Your task to perform on an android device: snooze an email in the gmail app Image 0: 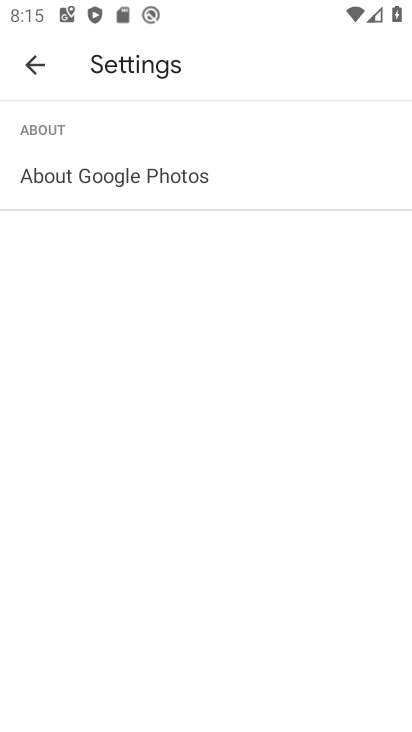
Step 0: press home button
Your task to perform on an android device: snooze an email in the gmail app Image 1: 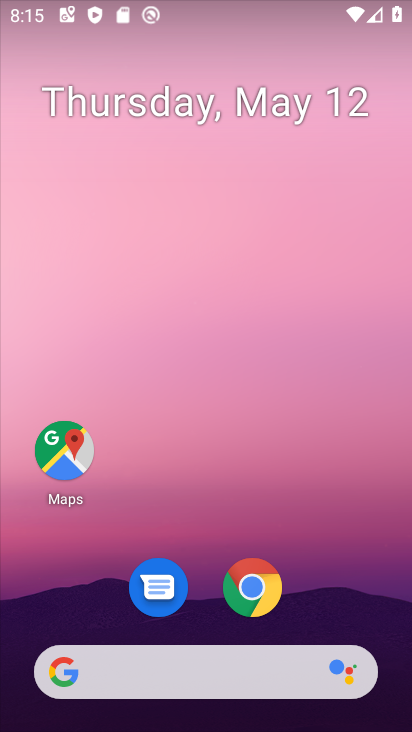
Step 1: drag from (331, 602) to (328, 188)
Your task to perform on an android device: snooze an email in the gmail app Image 2: 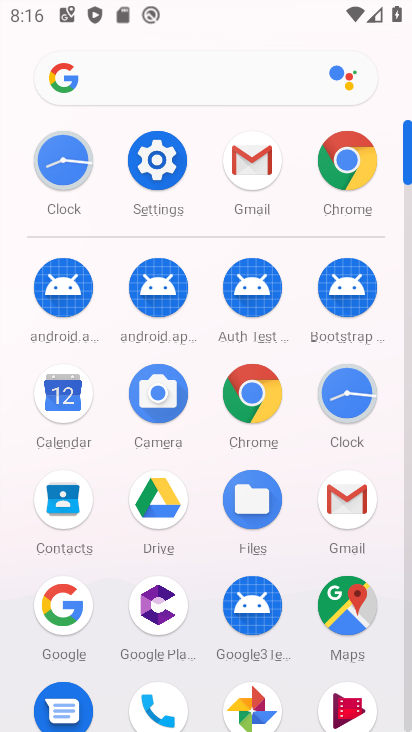
Step 2: click (336, 494)
Your task to perform on an android device: snooze an email in the gmail app Image 3: 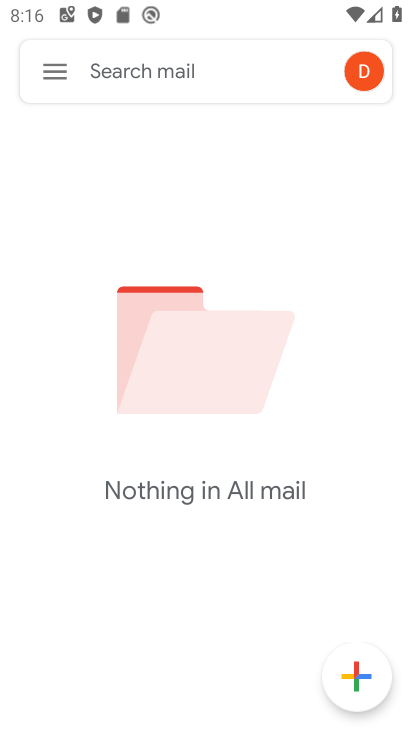
Step 3: click (47, 64)
Your task to perform on an android device: snooze an email in the gmail app Image 4: 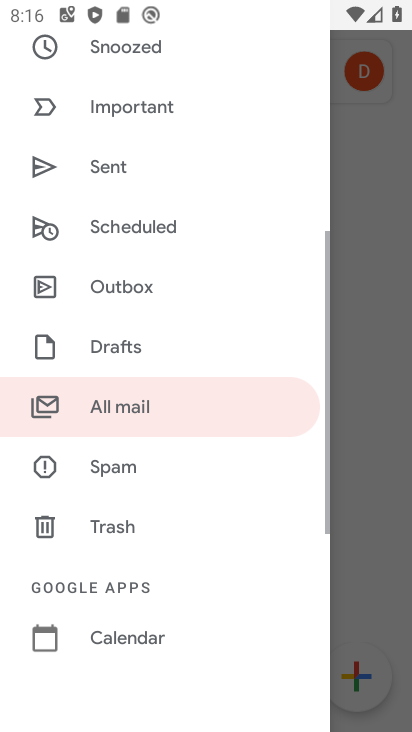
Step 4: drag from (170, 160) to (166, 321)
Your task to perform on an android device: snooze an email in the gmail app Image 5: 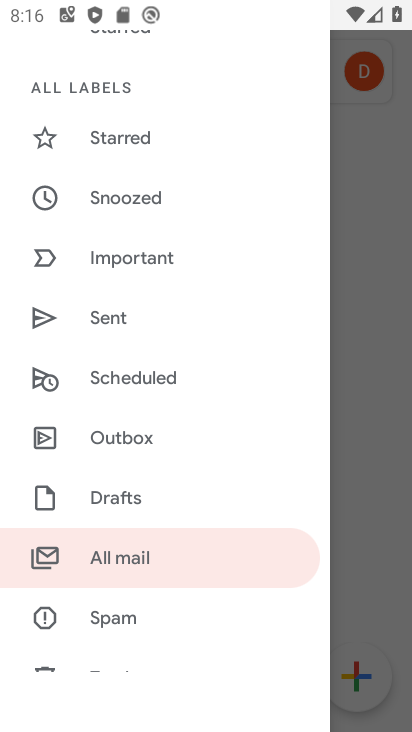
Step 5: click (115, 194)
Your task to perform on an android device: snooze an email in the gmail app Image 6: 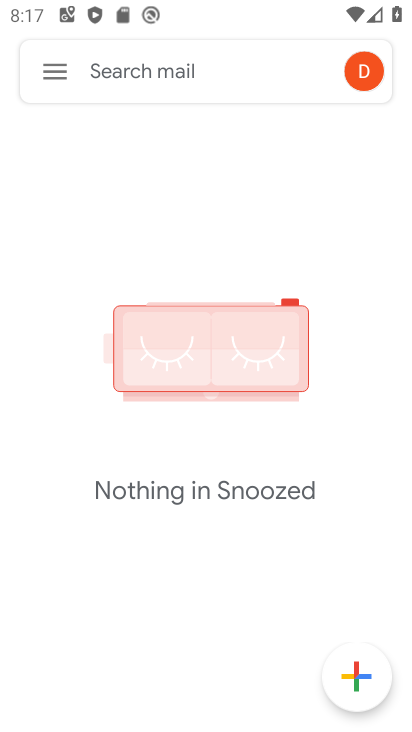
Step 6: task complete